Your task to perform on an android device: refresh tabs in the chrome app Image 0: 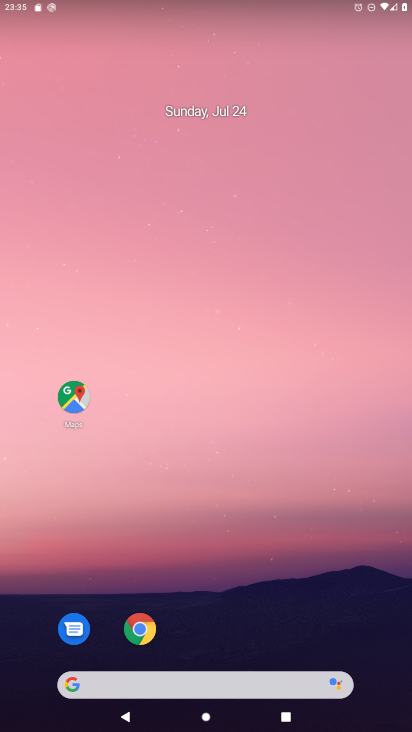
Step 0: drag from (185, 637) to (177, 152)
Your task to perform on an android device: refresh tabs in the chrome app Image 1: 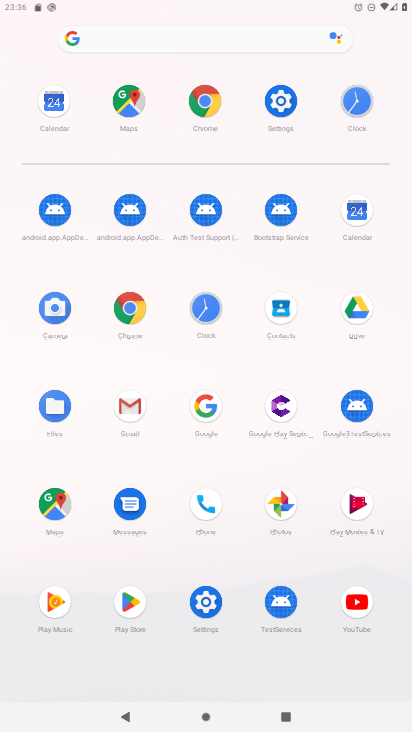
Step 1: click (128, 303)
Your task to perform on an android device: refresh tabs in the chrome app Image 2: 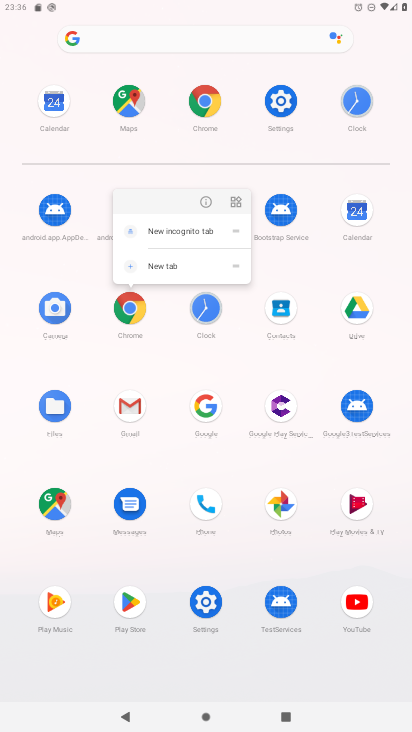
Step 2: click (200, 199)
Your task to perform on an android device: refresh tabs in the chrome app Image 3: 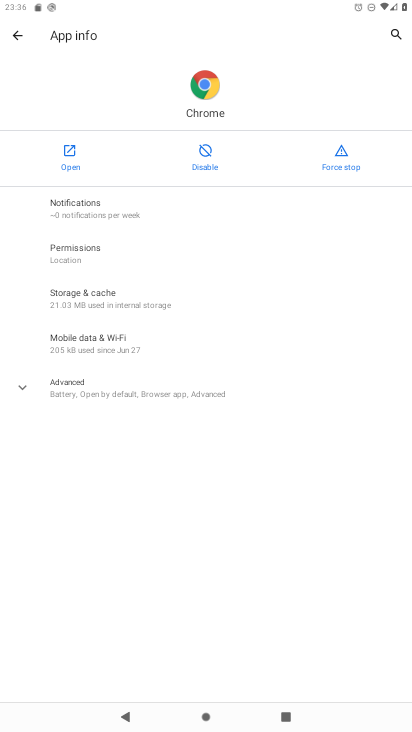
Step 3: click (72, 153)
Your task to perform on an android device: refresh tabs in the chrome app Image 4: 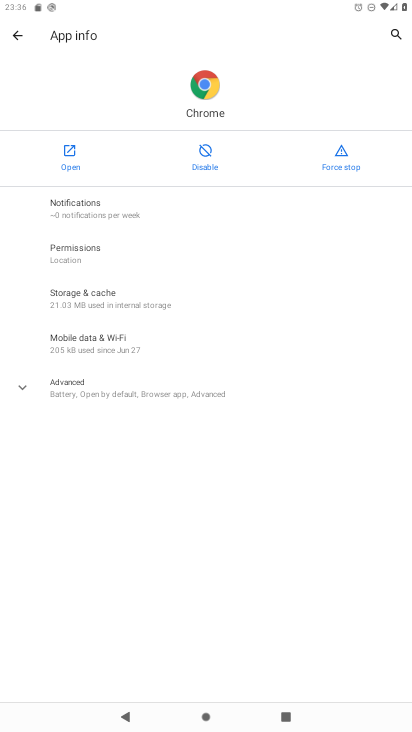
Step 4: click (72, 153)
Your task to perform on an android device: refresh tabs in the chrome app Image 5: 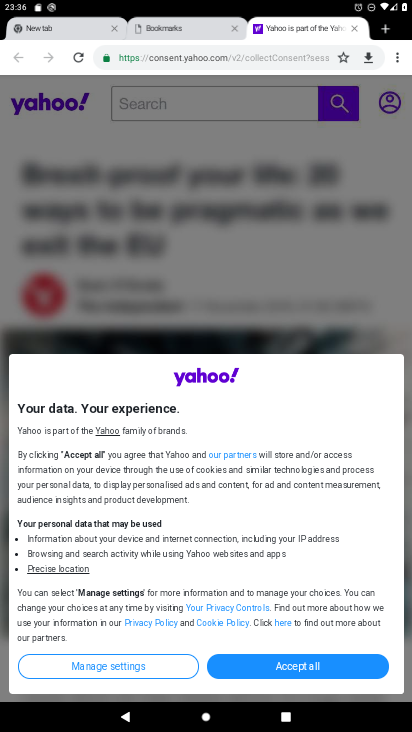
Step 5: click (70, 55)
Your task to perform on an android device: refresh tabs in the chrome app Image 6: 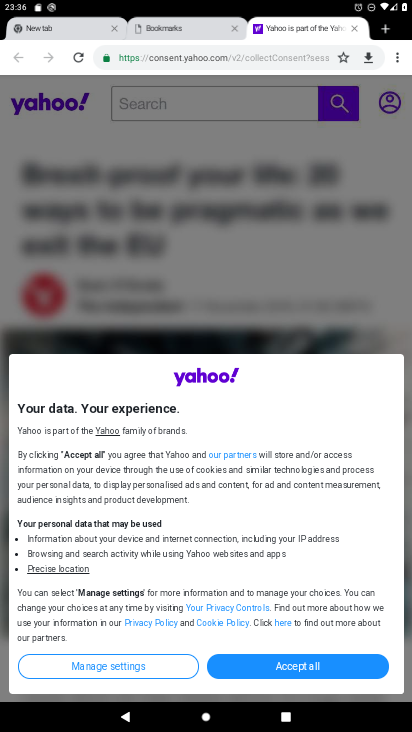
Step 6: task complete